Your task to perform on an android device: check android version Image 0: 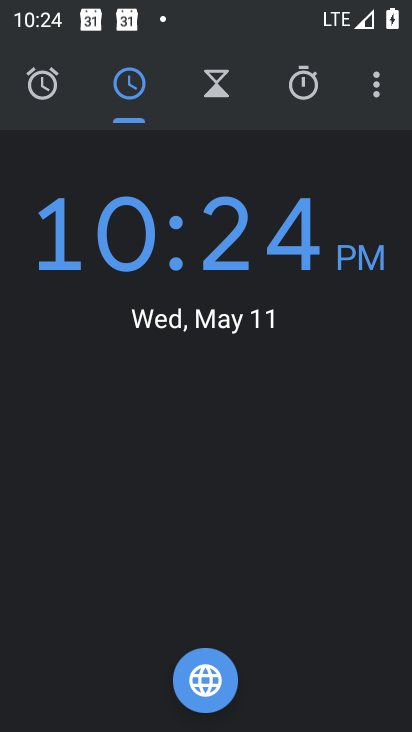
Step 0: press home button
Your task to perform on an android device: check android version Image 1: 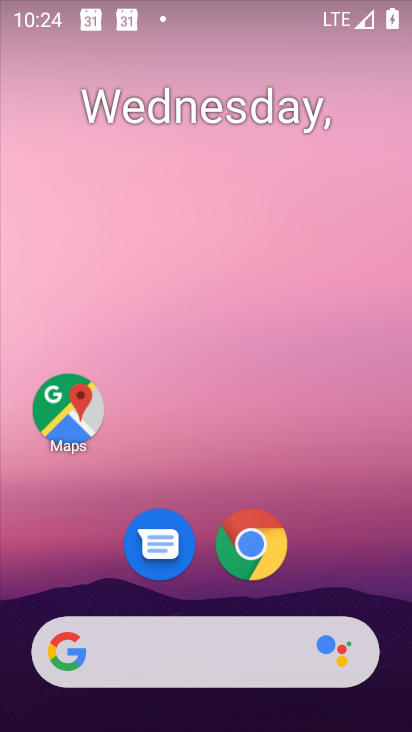
Step 1: drag from (304, 591) to (296, 59)
Your task to perform on an android device: check android version Image 2: 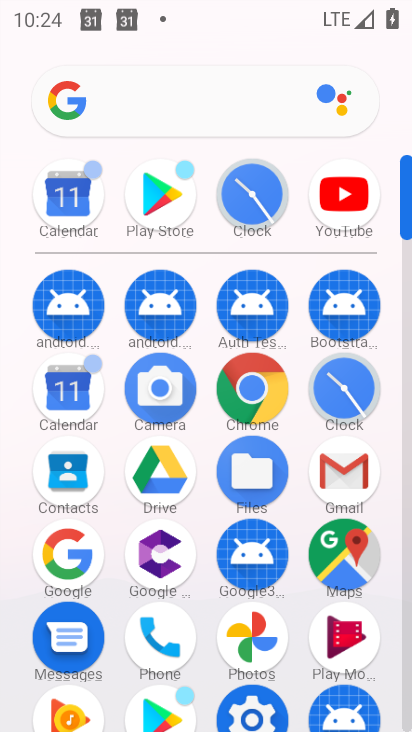
Step 2: click (242, 708)
Your task to perform on an android device: check android version Image 3: 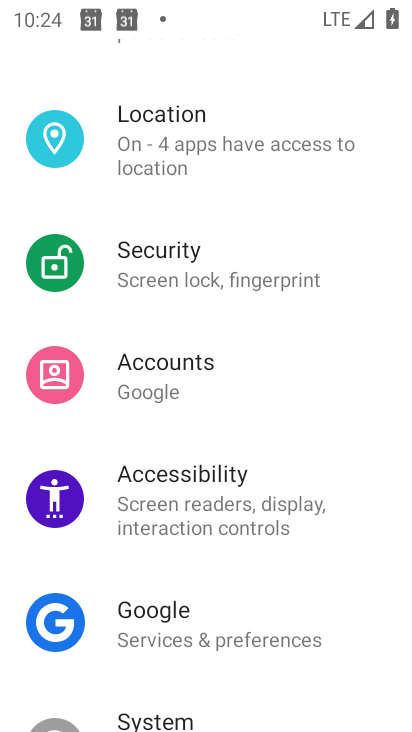
Step 3: drag from (211, 682) to (218, 337)
Your task to perform on an android device: check android version Image 4: 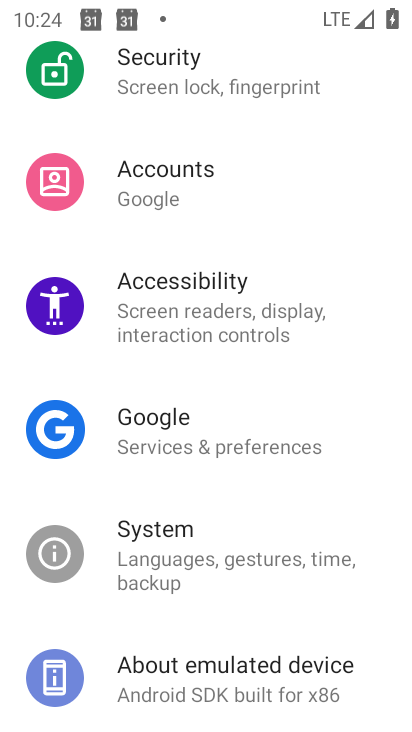
Step 4: click (261, 677)
Your task to perform on an android device: check android version Image 5: 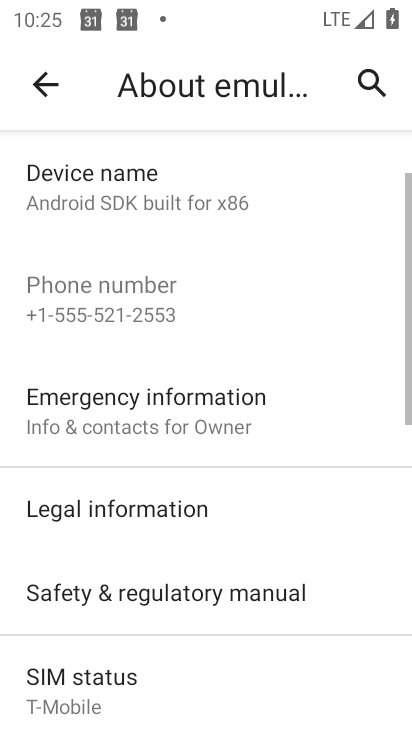
Step 5: drag from (181, 572) to (204, 231)
Your task to perform on an android device: check android version Image 6: 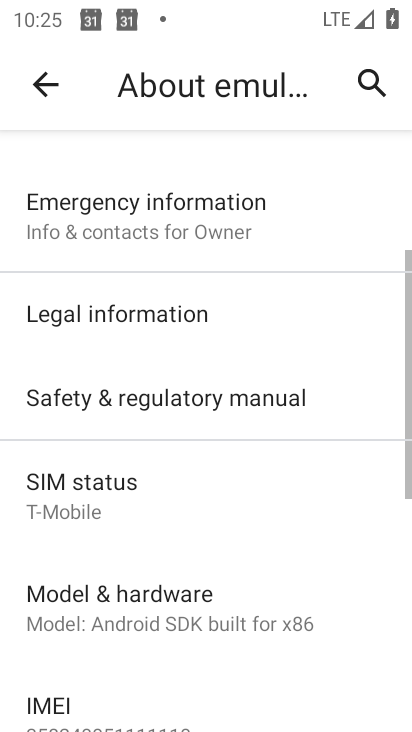
Step 6: drag from (160, 615) to (199, 343)
Your task to perform on an android device: check android version Image 7: 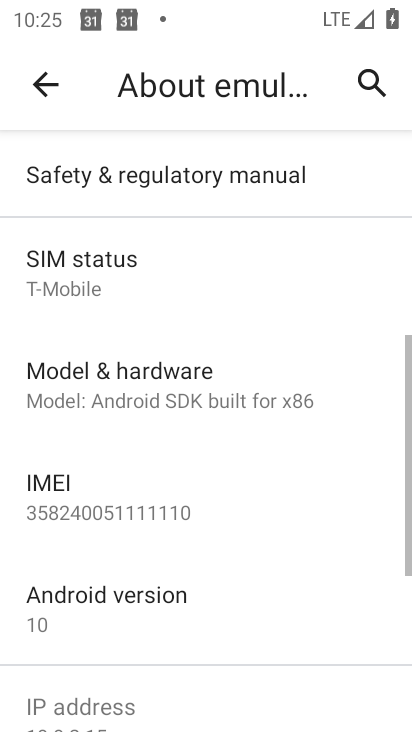
Step 7: click (182, 595)
Your task to perform on an android device: check android version Image 8: 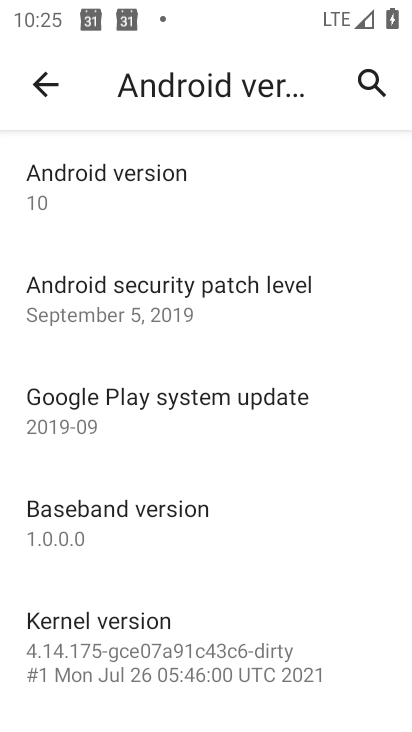
Step 8: click (169, 174)
Your task to perform on an android device: check android version Image 9: 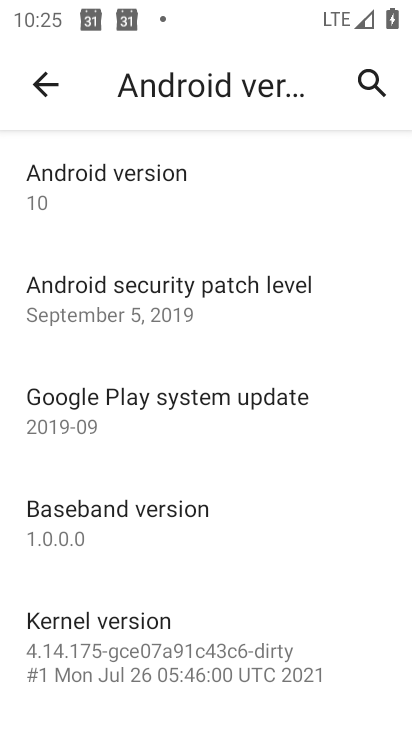
Step 9: task complete